Your task to perform on an android device: toggle airplane mode Image 0: 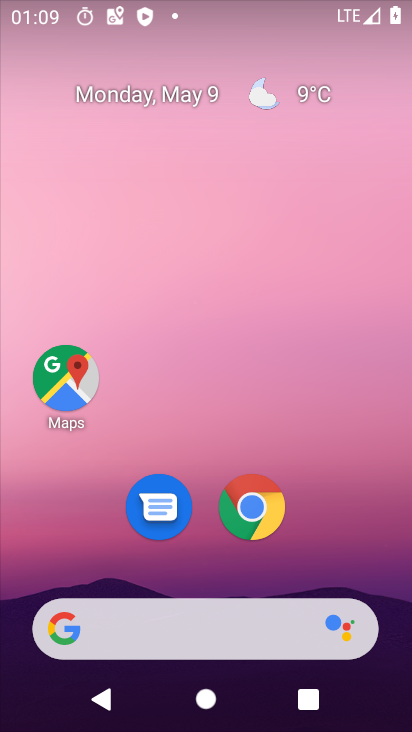
Step 0: drag from (228, 726) to (226, 145)
Your task to perform on an android device: toggle airplane mode Image 1: 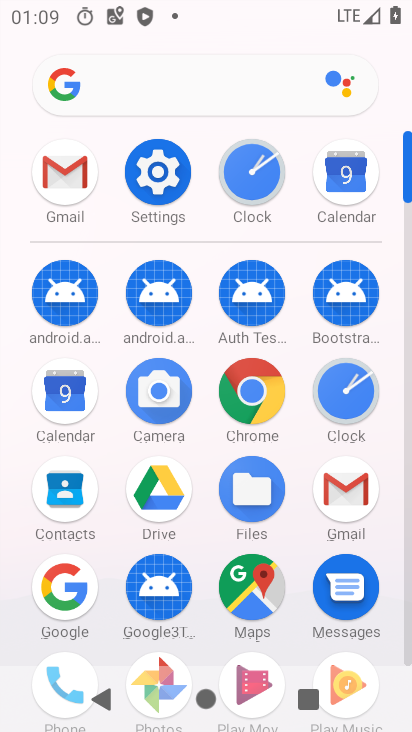
Step 1: click (162, 177)
Your task to perform on an android device: toggle airplane mode Image 2: 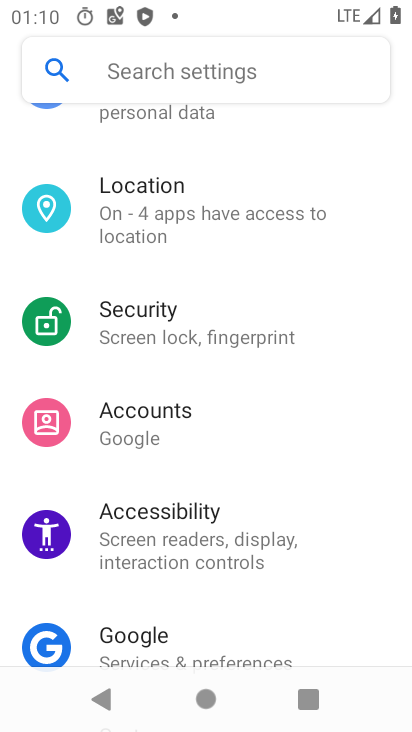
Step 2: drag from (287, 181) to (302, 462)
Your task to perform on an android device: toggle airplane mode Image 3: 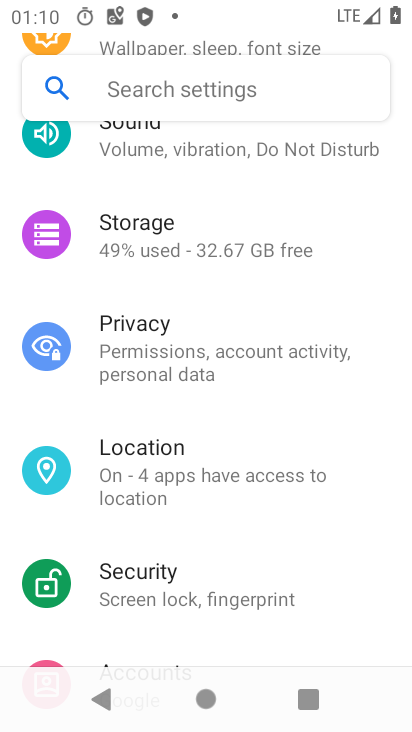
Step 3: drag from (285, 167) to (307, 492)
Your task to perform on an android device: toggle airplane mode Image 4: 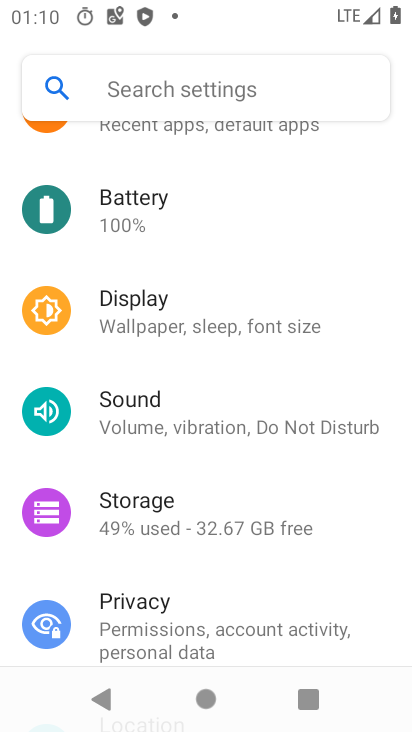
Step 4: drag from (311, 164) to (330, 549)
Your task to perform on an android device: toggle airplane mode Image 5: 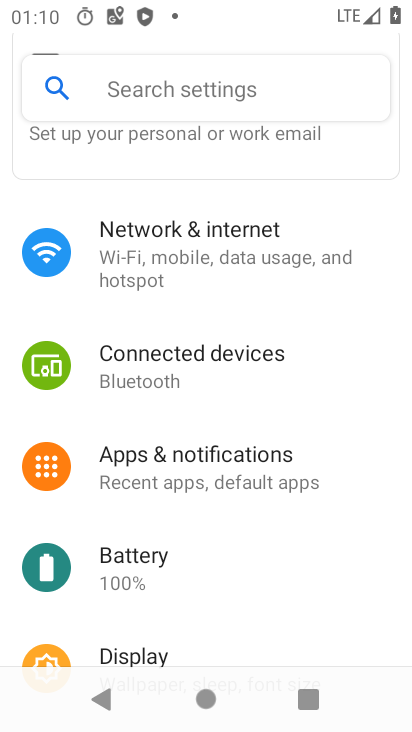
Step 5: click (137, 247)
Your task to perform on an android device: toggle airplane mode Image 6: 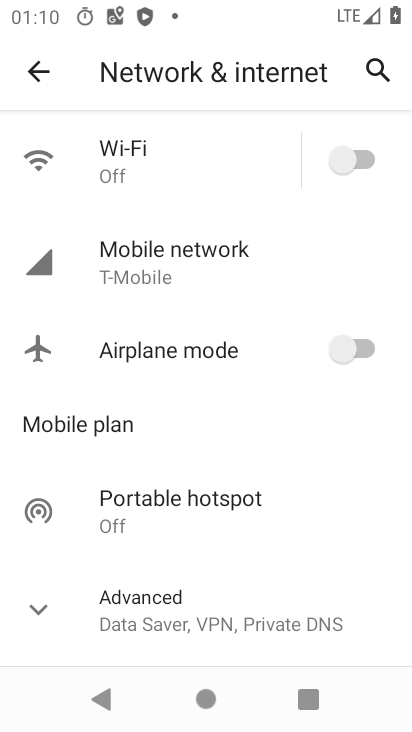
Step 6: click (366, 352)
Your task to perform on an android device: toggle airplane mode Image 7: 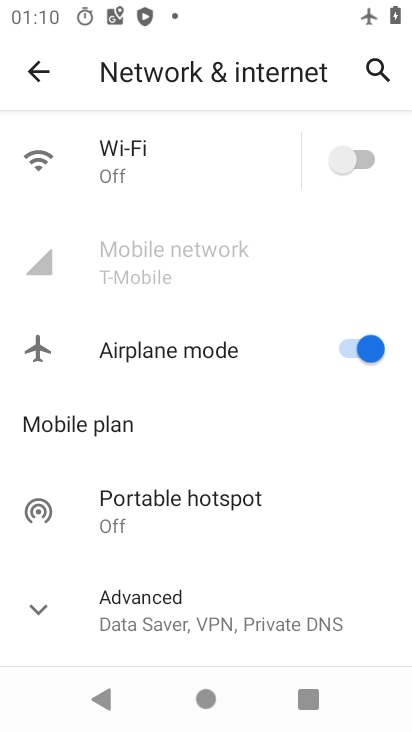
Step 7: task complete